Your task to perform on an android device: Go to Google maps Image 0: 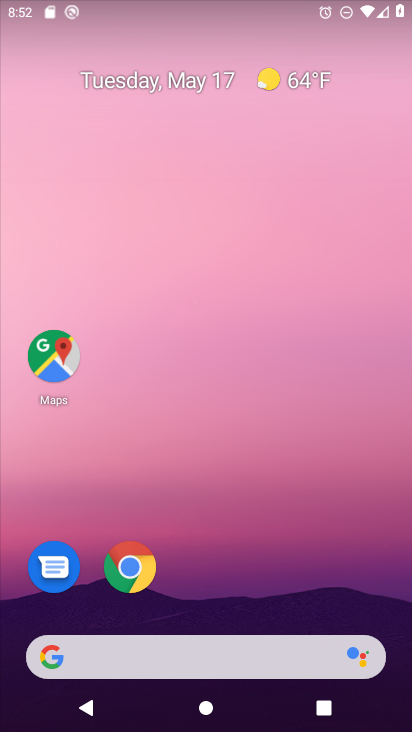
Step 0: drag from (388, 612) to (241, 42)
Your task to perform on an android device: Go to Google maps Image 1: 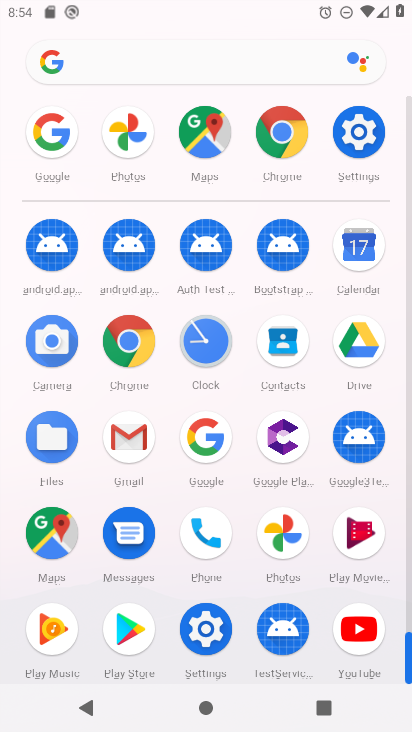
Step 1: click (48, 543)
Your task to perform on an android device: Go to Google maps Image 2: 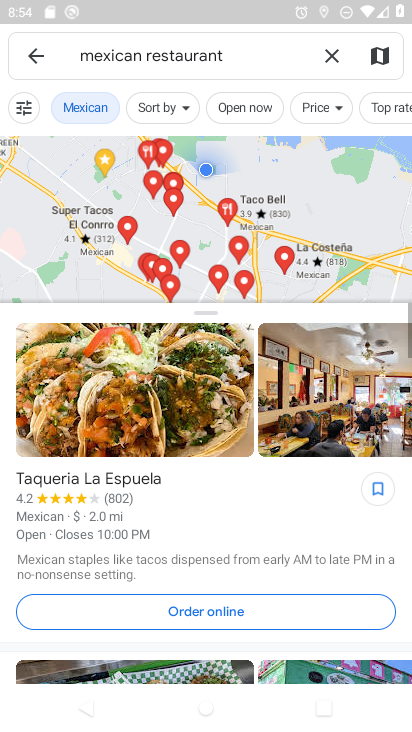
Step 2: click (331, 48)
Your task to perform on an android device: Go to Google maps Image 3: 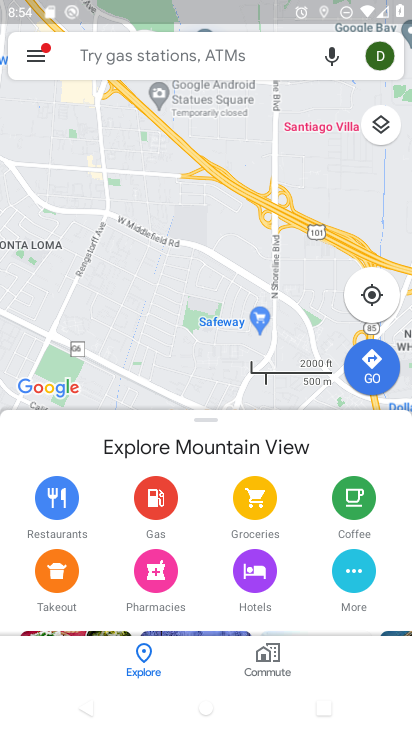
Step 3: task complete